Your task to perform on an android device: turn off priority inbox in the gmail app Image 0: 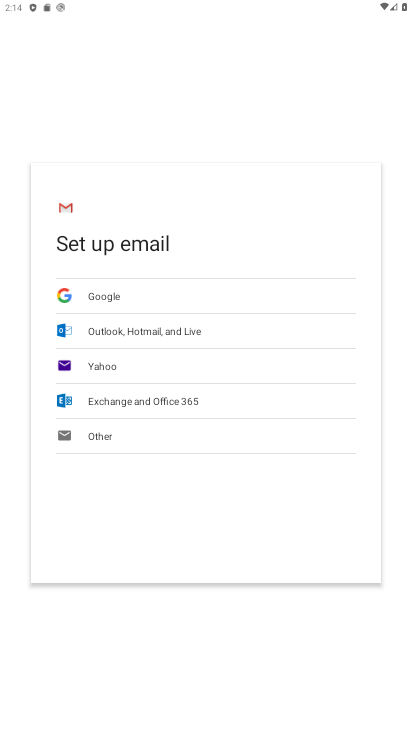
Step 0: press back button
Your task to perform on an android device: turn off priority inbox in the gmail app Image 1: 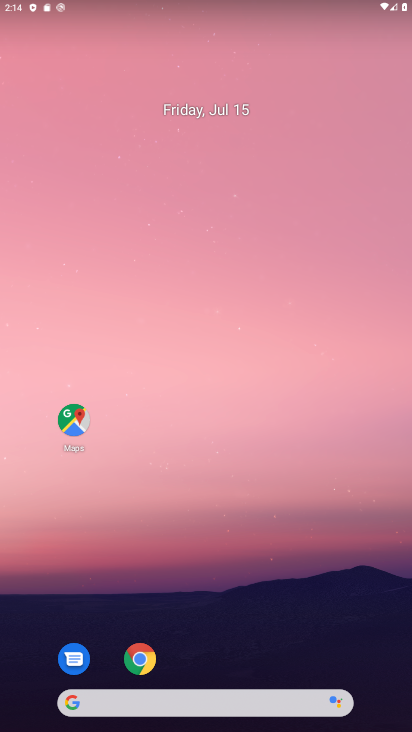
Step 1: drag from (193, 688) to (224, 233)
Your task to perform on an android device: turn off priority inbox in the gmail app Image 2: 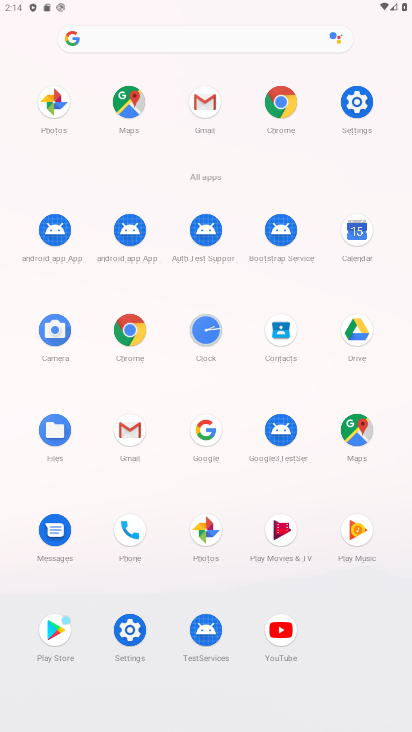
Step 2: click (128, 431)
Your task to perform on an android device: turn off priority inbox in the gmail app Image 3: 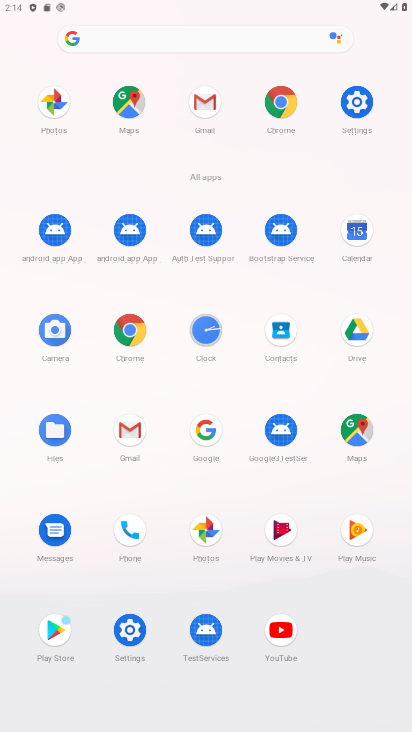
Step 3: click (128, 431)
Your task to perform on an android device: turn off priority inbox in the gmail app Image 4: 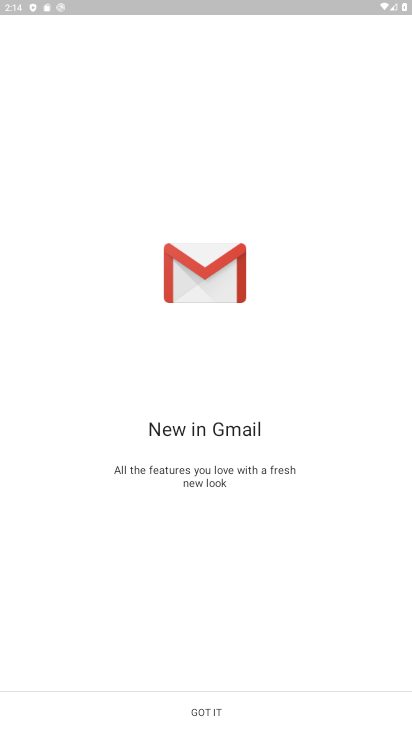
Step 4: click (205, 705)
Your task to perform on an android device: turn off priority inbox in the gmail app Image 5: 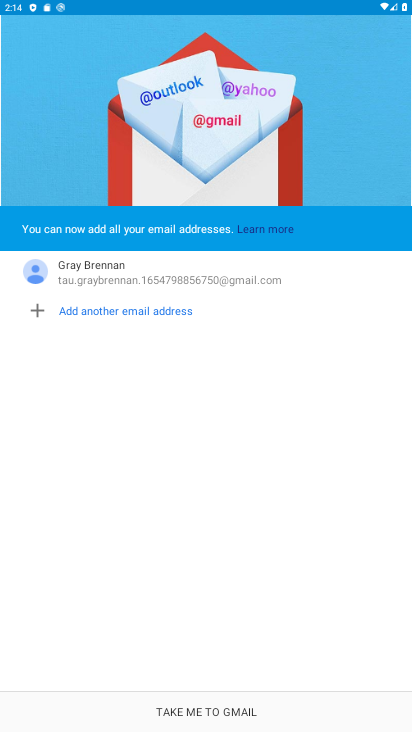
Step 5: click (224, 718)
Your task to perform on an android device: turn off priority inbox in the gmail app Image 6: 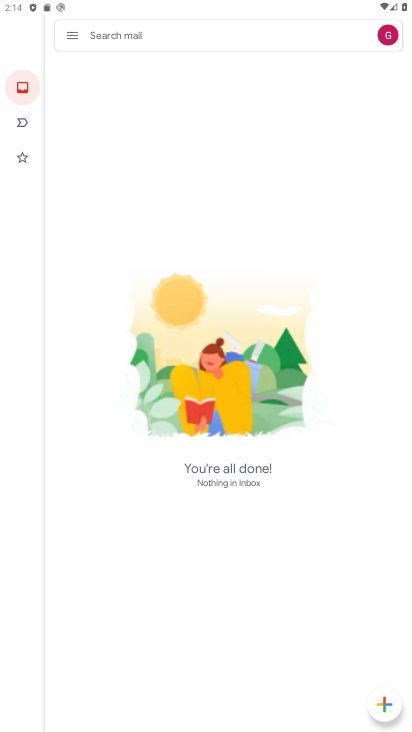
Step 6: press back button
Your task to perform on an android device: turn off priority inbox in the gmail app Image 7: 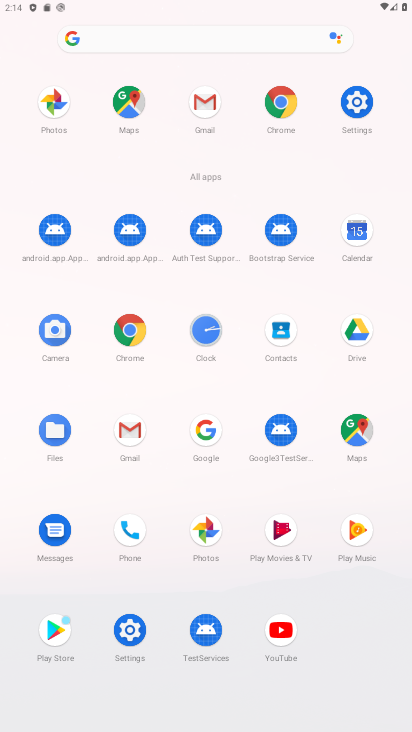
Step 7: click (128, 438)
Your task to perform on an android device: turn off priority inbox in the gmail app Image 8: 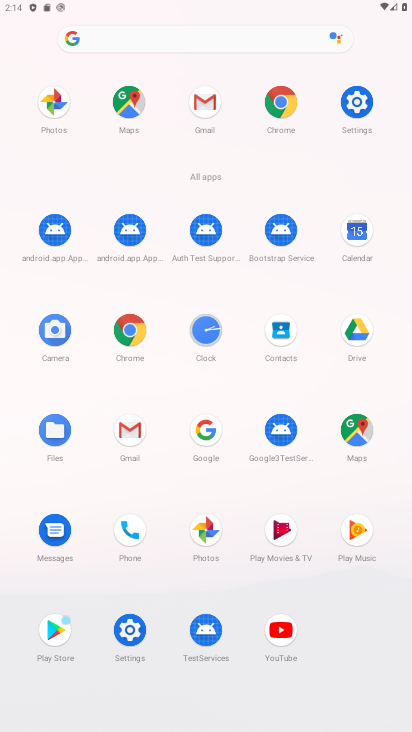
Step 8: click (128, 438)
Your task to perform on an android device: turn off priority inbox in the gmail app Image 9: 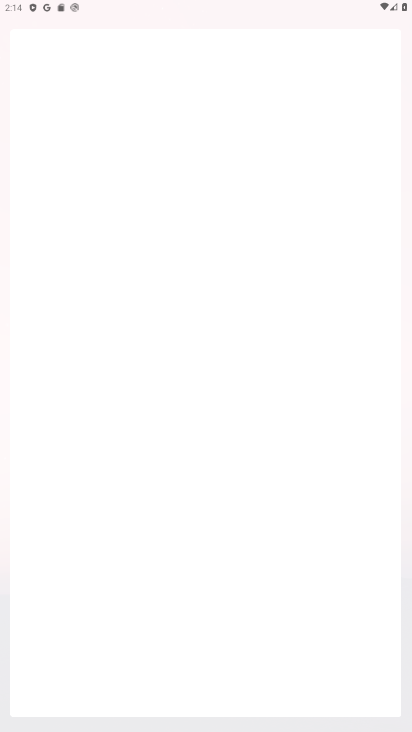
Step 9: click (128, 438)
Your task to perform on an android device: turn off priority inbox in the gmail app Image 10: 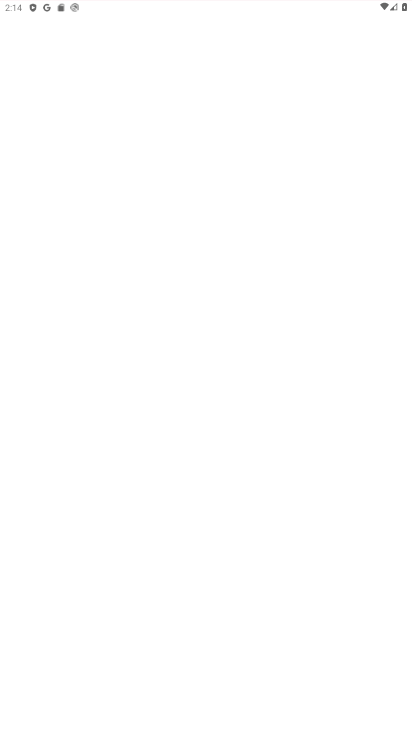
Step 10: click (128, 438)
Your task to perform on an android device: turn off priority inbox in the gmail app Image 11: 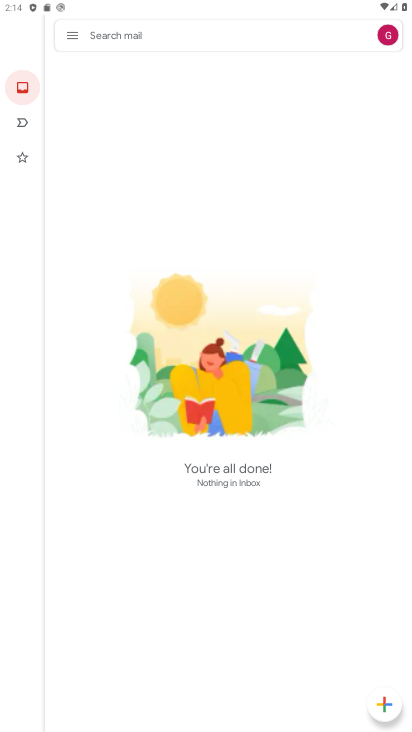
Step 11: click (68, 33)
Your task to perform on an android device: turn off priority inbox in the gmail app Image 12: 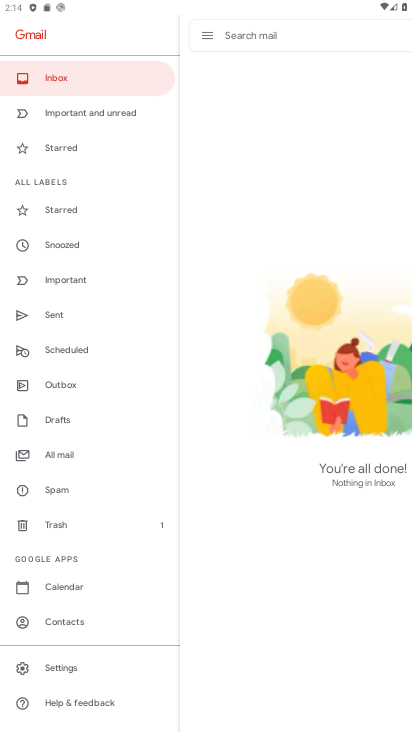
Step 12: click (56, 659)
Your task to perform on an android device: turn off priority inbox in the gmail app Image 13: 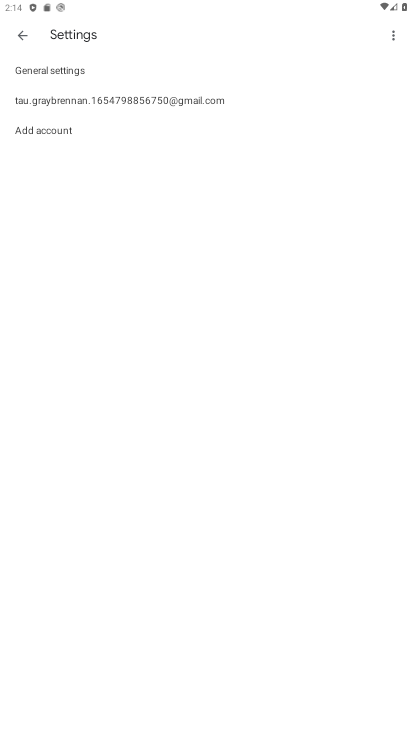
Step 13: click (118, 92)
Your task to perform on an android device: turn off priority inbox in the gmail app Image 14: 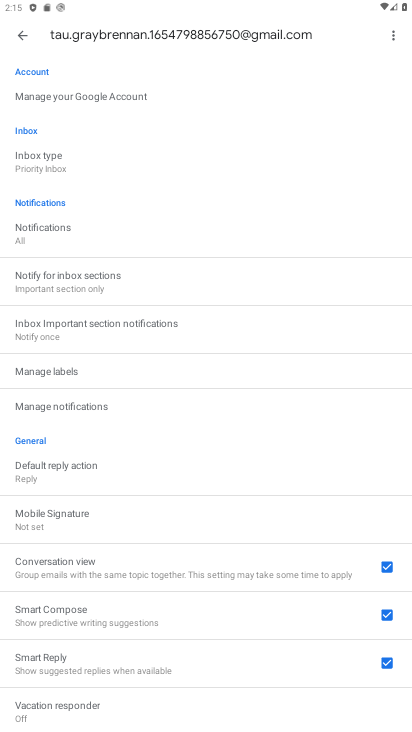
Step 14: click (36, 157)
Your task to perform on an android device: turn off priority inbox in the gmail app Image 15: 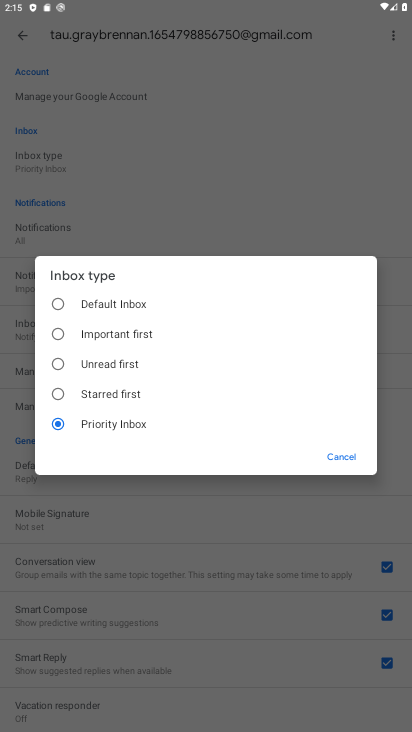
Step 15: click (53, 305)
Your task to perform on an android device: turn off priority inbox in the gmail app Image 16: 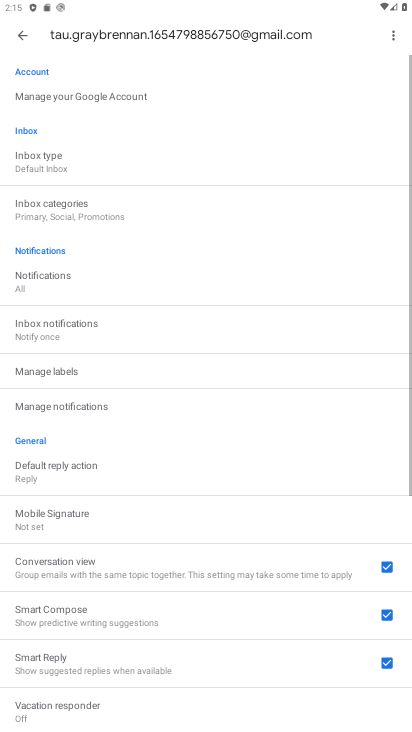
Step 16: click (35, 156)
Your task to perform on an android device: turn off priority inbox in the gmail app Image 17: 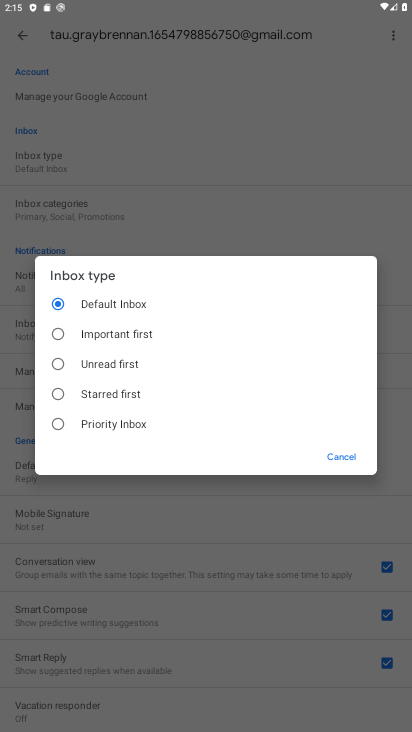
Step 17: click (343, 455)
Your task to perform on an android device: turn off priority inbox in the gmail app Image 18: 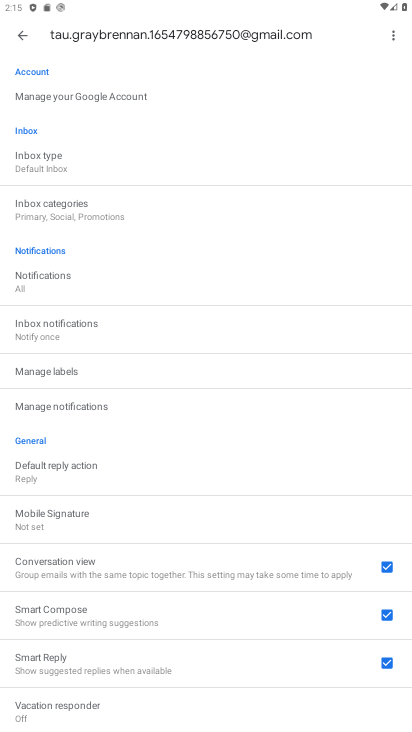
Step 18: task complete